Your task to perform on an android device: find snoozed emails in the gmail app Image 0: 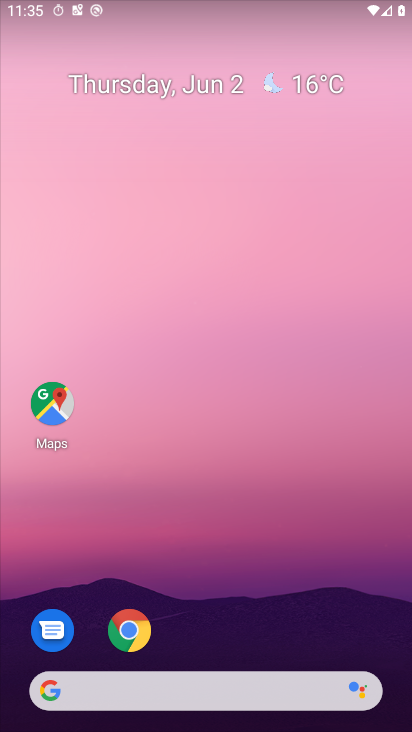
Step 0: drag from (220, 632) to (332, 77)
Your task to perform on an android device: find snoozed emails in the gmail app Image 1: 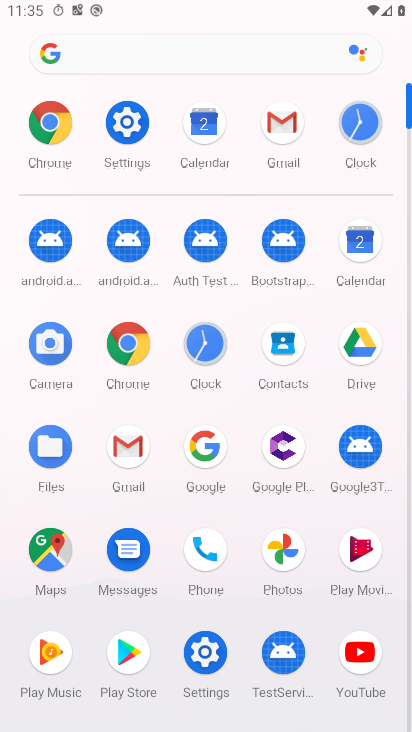
Step 1: click (133, 459)
Your task to perform on an android device: find snoozed emails in the gmail app Image 2: 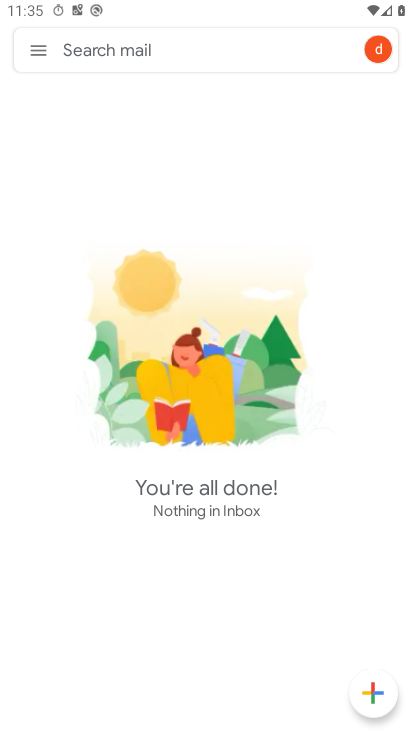
Step 2: click (40, 42)
Your task to perform on an android device: find snoozed emails in the gmail app Image 3: 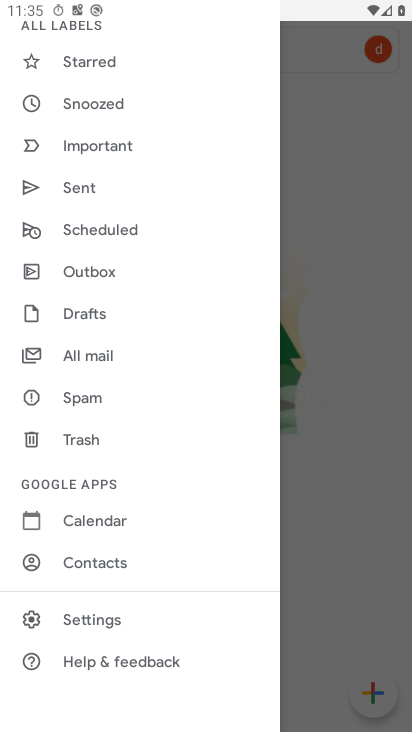
Step 3: click (97, 102)
Your task to perform on an android device: find snoozed emails in the gmail app Image 4: 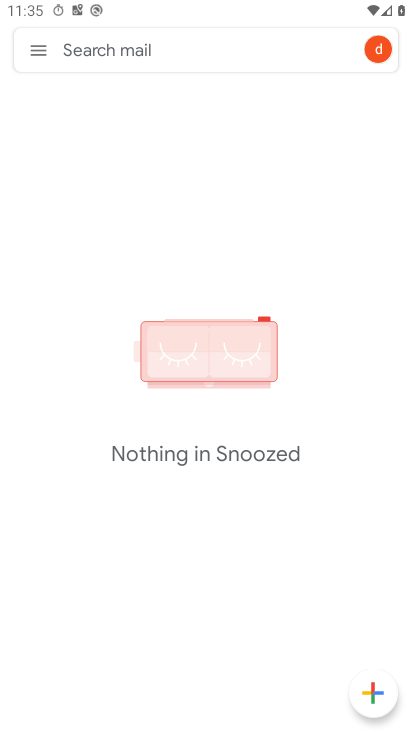
Step 4: task complete